Your task to perform on an android device: snooze an email in the gmail app Image 0: 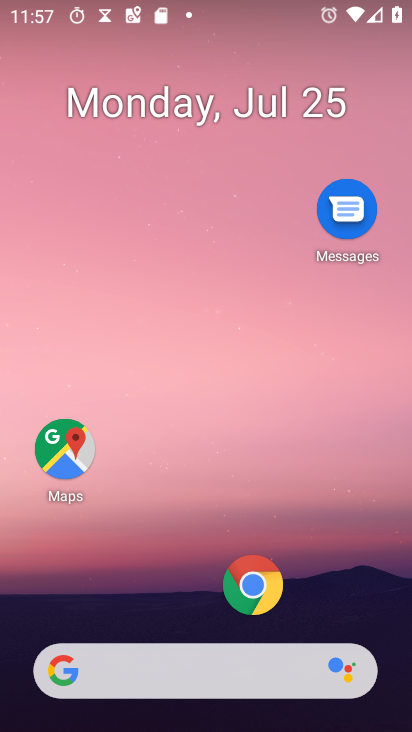
Step 0: drag from (205, 668) to (320, 63)
Your task to perform on an android device: snooze an email in the gmail app Image 1: 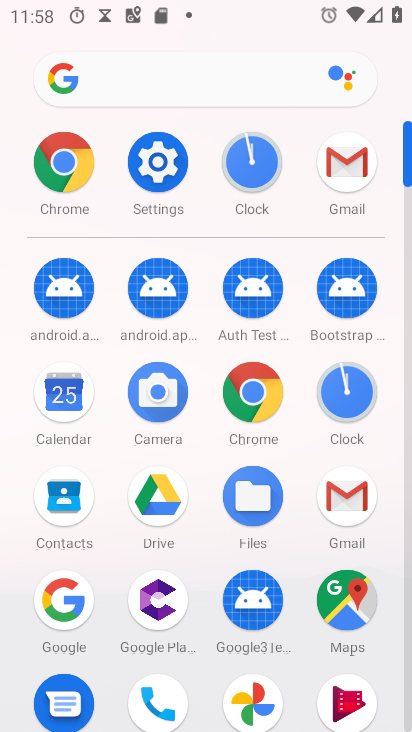
Step 1: click (357, 153)
Your task to perform on an android device: snooze an email in the gmail app Image 2: 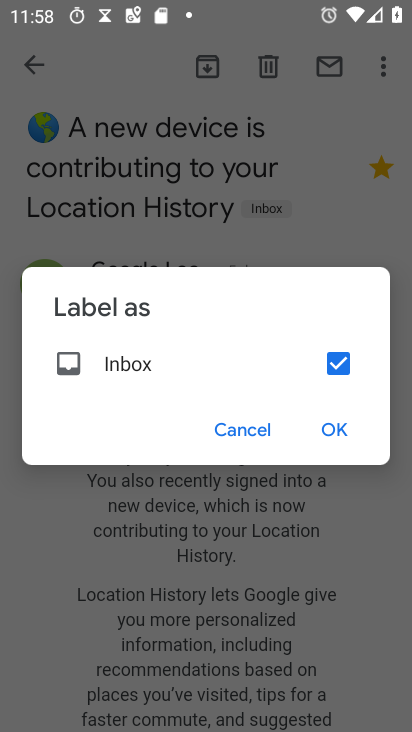
Step 2: click (264, 424)
Your task to perform on an android device: snooze an email in the gmail app Image 3: 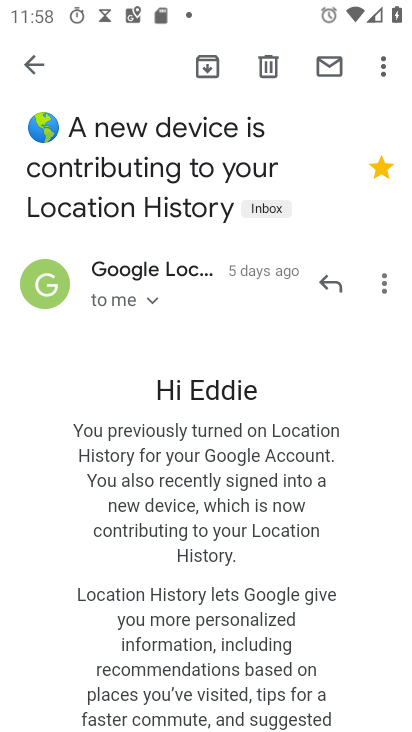
Step 3: click (46, 73)
Your task to perform on an android device: snooze an email in the gmail app Image 4: 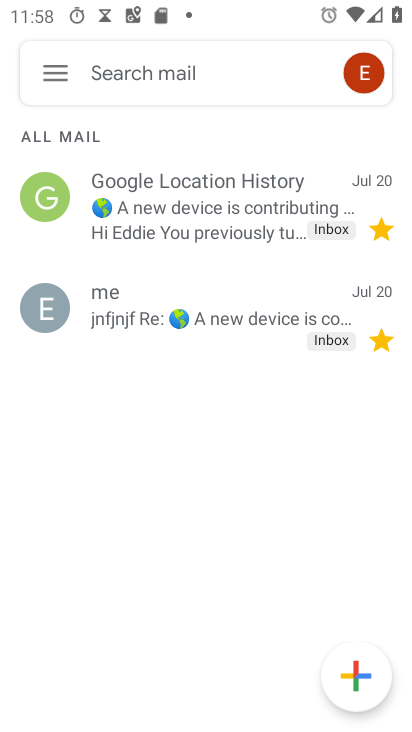
Step 4: click (52, 207)
Your task to perform on an android device: snooze an email in the gmail app Image 5: 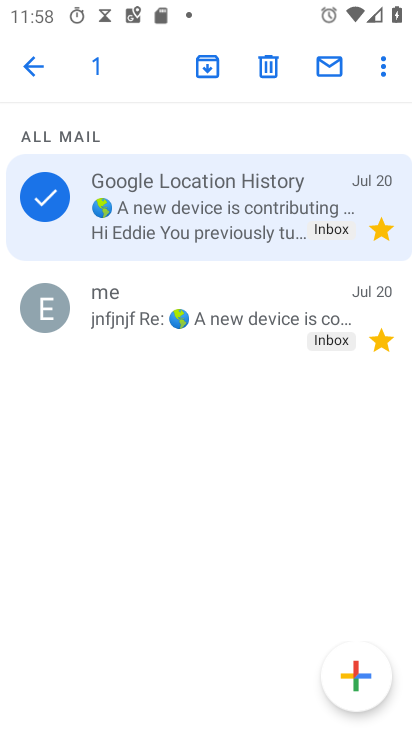
Step 5: click (382, 71)
Your task to perform on an android device: snooze an email in the gmail app Image 6: 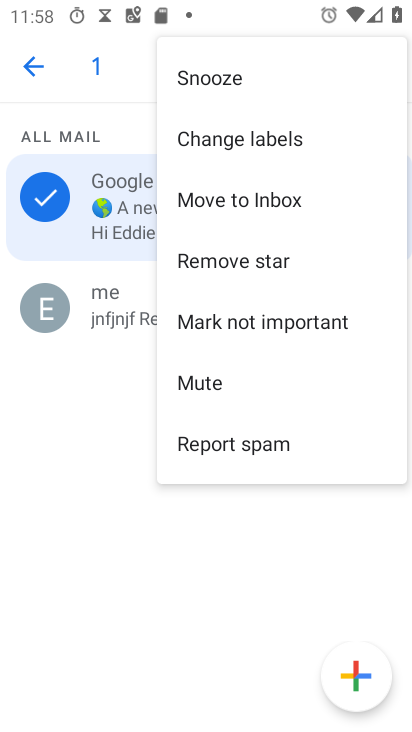
Step 6: click (239, 83)
Your task to perform on an android device: snooze an email in the gmail app Image 7: 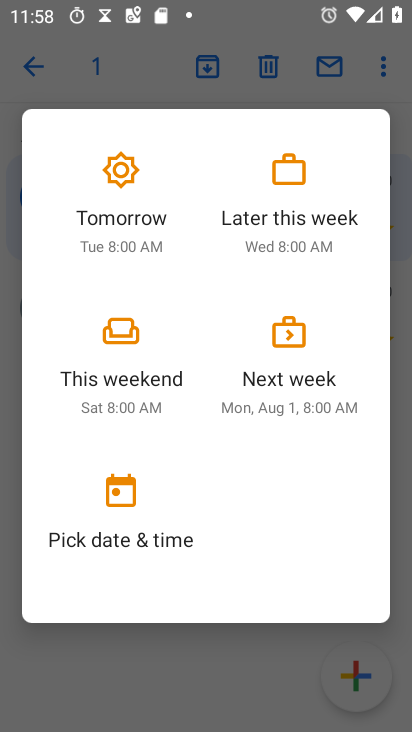
Step 7: click (133, 232)
Your task to perform on an android device: snooze an email in the gmail app Image 8: 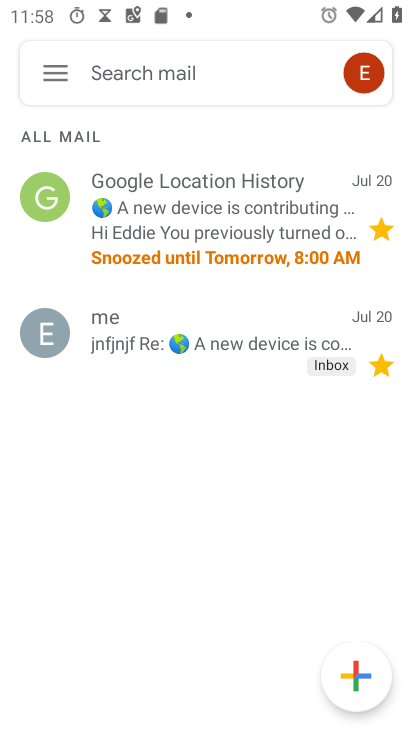
Step 8: task complete